Your task to perform on an android device: Go to notification settings Image 0: 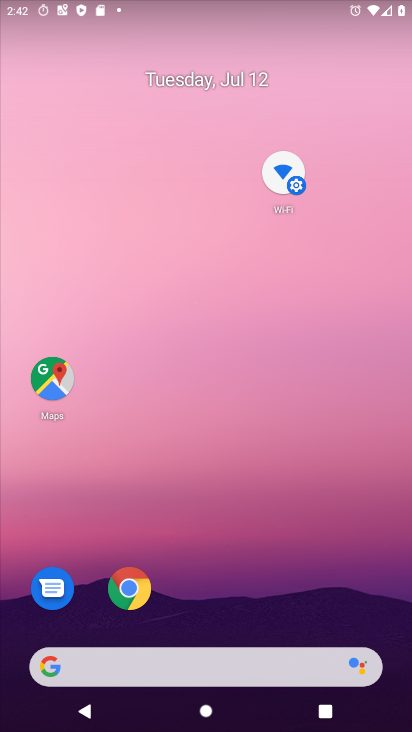
Step 0: drag from (177, 579) to (357, 22)
Your task to perform on an android device: Go to notification settings Image 1: 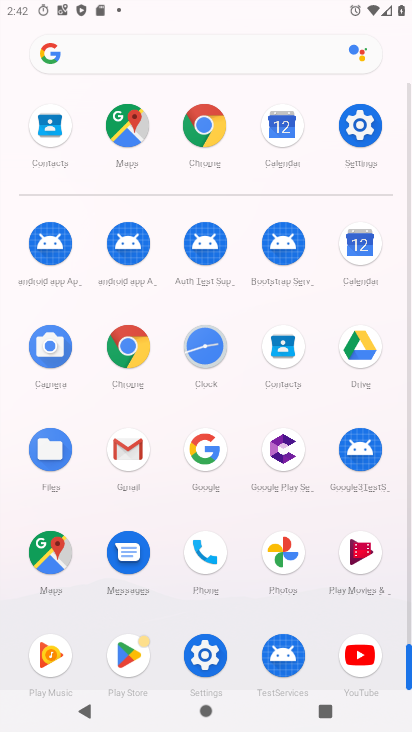
Step 1: click (193, 652)
Your task to perform on an android device: Go to notification settings Image 2: 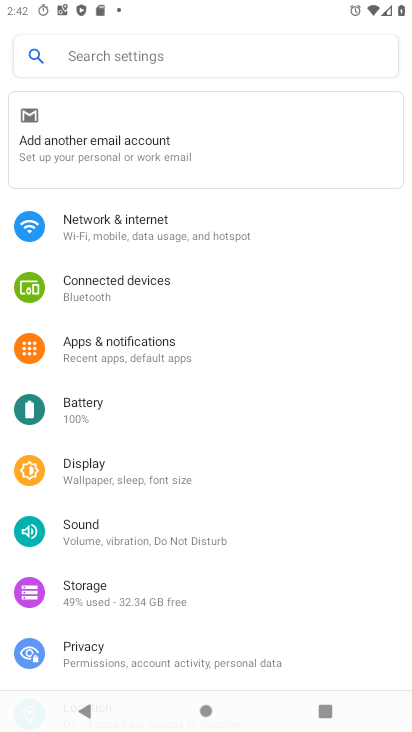
Step 2: click (145, 350)
Your task to perform on an android device: Go to notification settings Image 3: 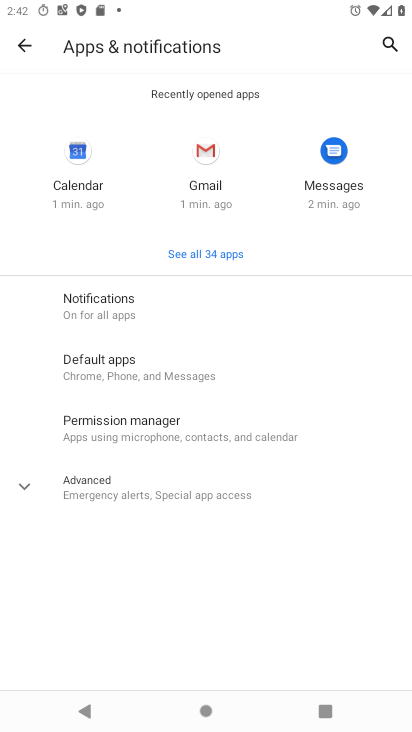
Step 3: click (120, 294)
Your task to perform on an android device: Go to notification settings Image 4: 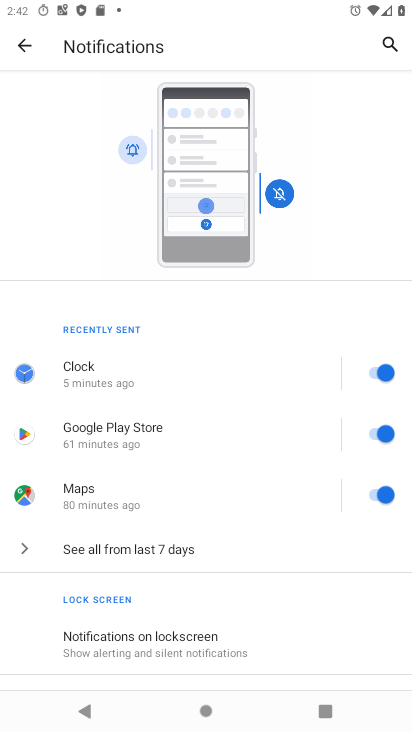
Step 4: task complete